Your task to perform on an android device: allow notifications from all sites in the chrome app Image 0: 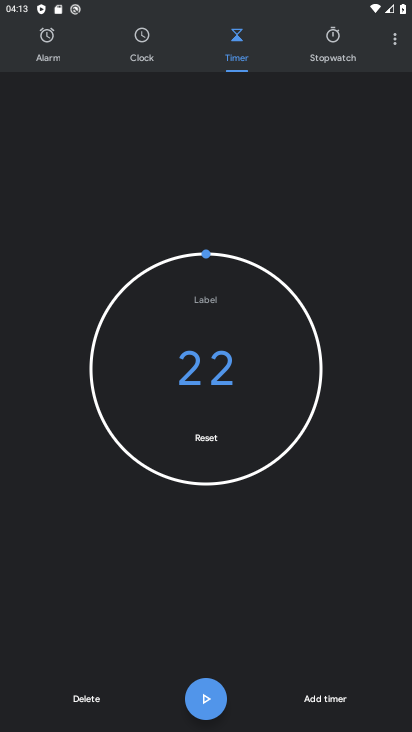
Step 0: press home button
Your task to perform on an android device: allow notifications from all sites in the chrome app Image 1: 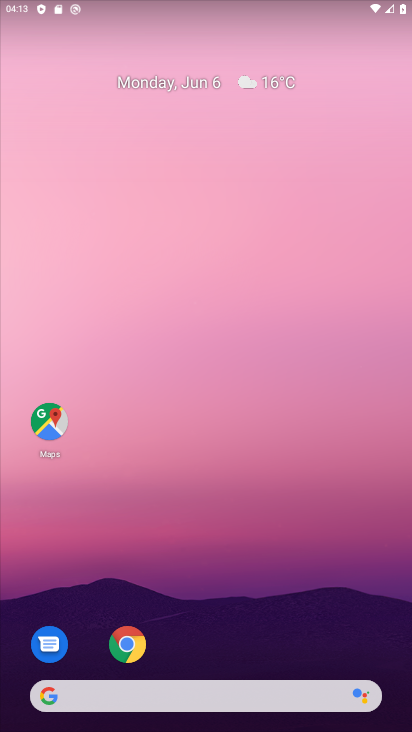
Step 1: drag from (394, 680) to (332, 75)
Your task to perform on an android device: allow notifications from all sites in the chrome app Image 2: 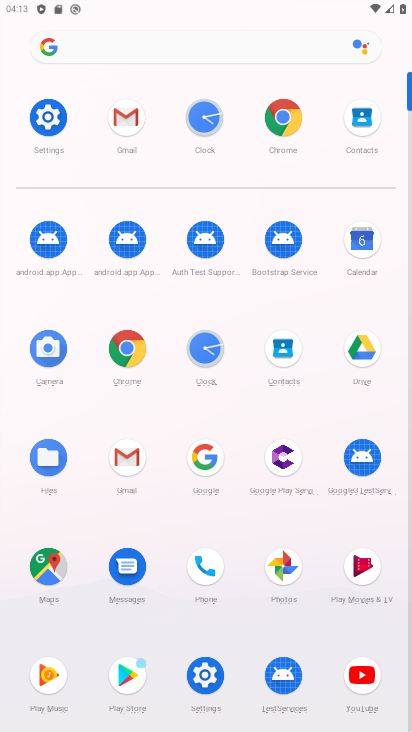
Step 2: click (41, 117)
Your task to perform on an android device: allow notifications from all sites in the chrome app Image 3: 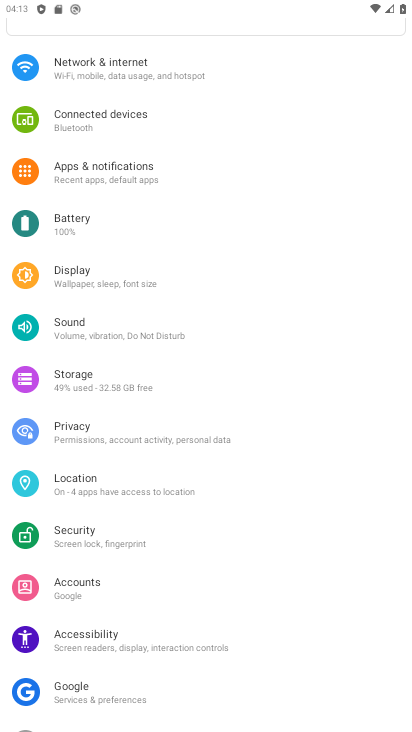
Step 3: click (116, 170)
Your task to perform on an android device: allow notifications from all sites in the chrome app Image 4: 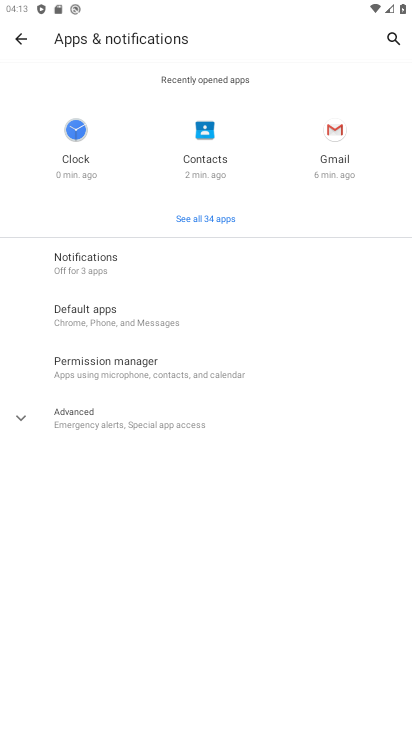
Step 4: click (85, 271)
Your task to perform on an android device: allow notifications from all sites in the chrome app Image 5: 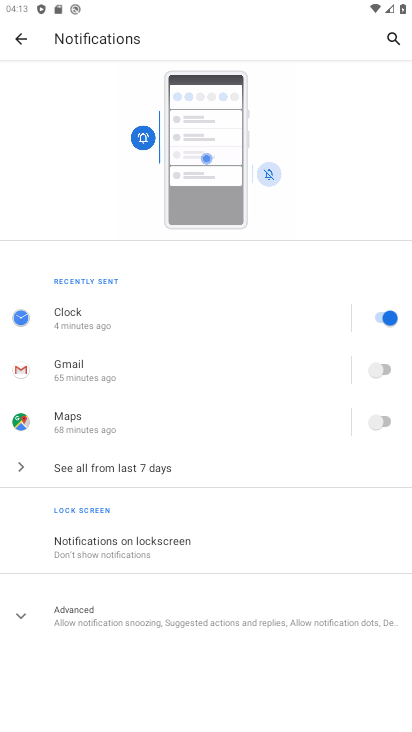
Step 5: press home button
Your task to perform on an android device: allow notifications from all sites in the chrome app Image 6: 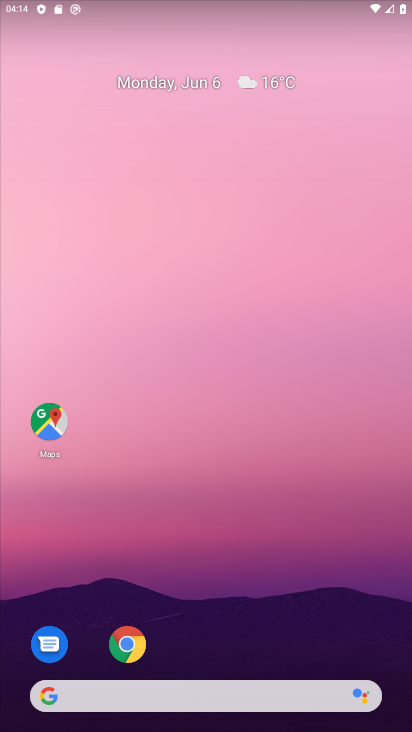
Step 6: click (136, 642)
Your task to perform on an android device: allow notifications from all sites in the chrome app Image 7: 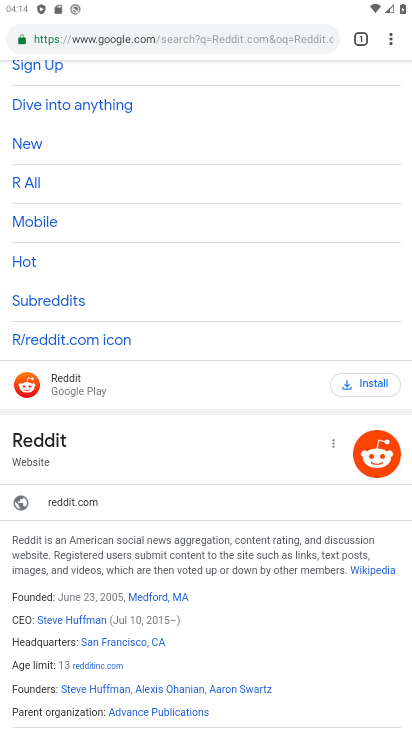
Step 7: click (390, 41)
Your task to perform on an android device: allow notifications from all sites in the chrome app Image 8: 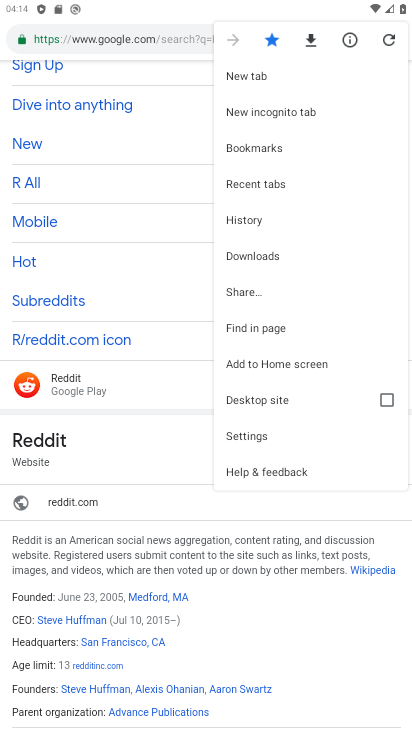
Step 8: click (252, 430)
Your task to perform on an android device: allow notifications from all sites in the chrome app Image 9: 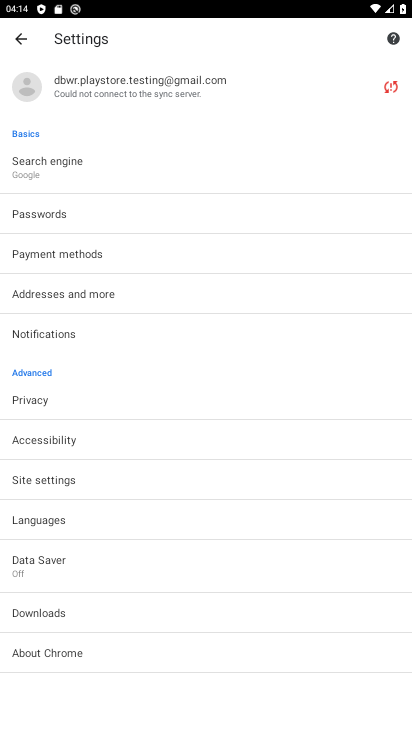
Step 9: click (52, 330)
Your task to perform on an android device: allow notifications from all sites in the chrome app Image 10: 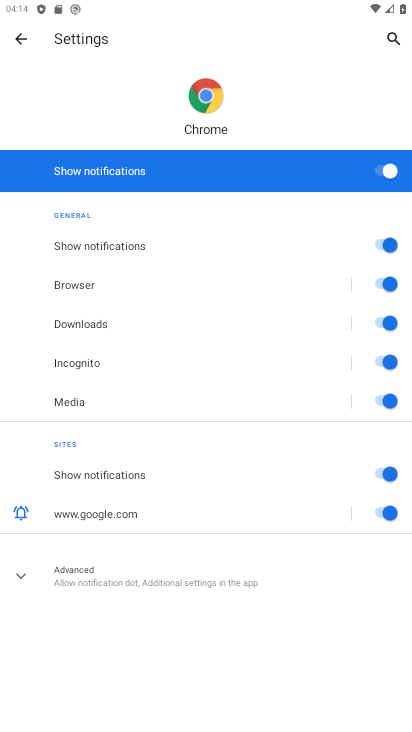
Step 10: click (18, 35)
Your task to perform on an android device: allow notifications from all sites in the chrome app Image 11: 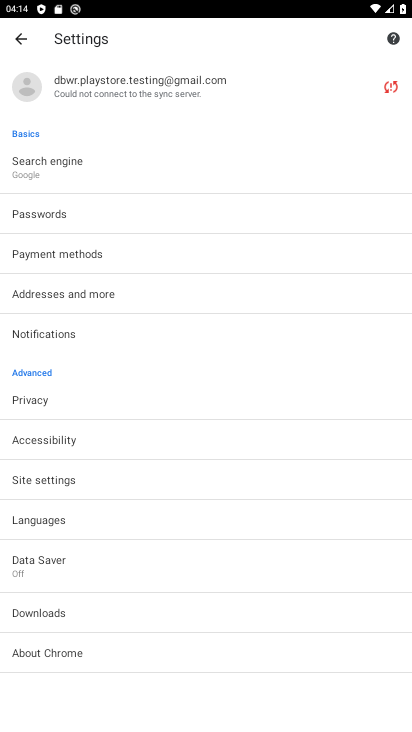
Step 11: click (54, 477)
Your task to perform on an android device: allow notifications from all sites in the chrome app Image 12: 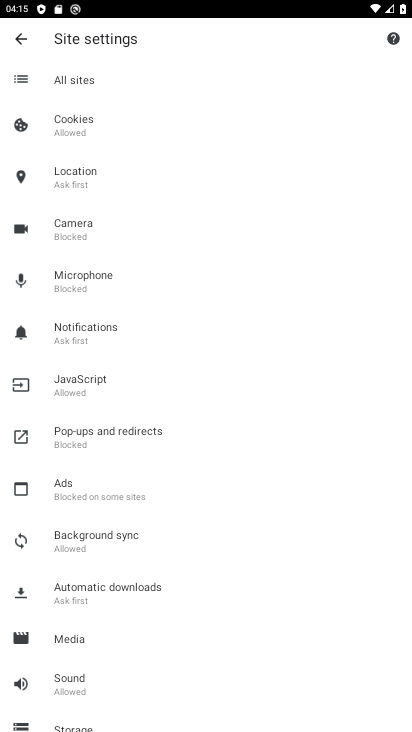
Step 12: click (77, 331)
Your task to perform on an android device: allow notifications from all sites in the chrome app Image 13: 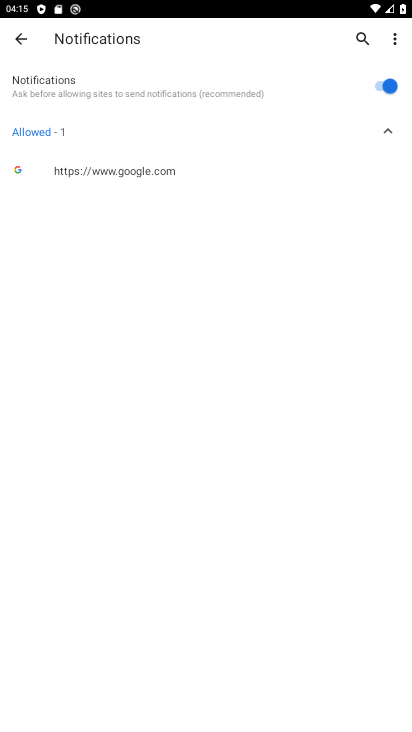
Step 13: task complete